Your task to perform on an android device: turn on the 12-hour format for clock Image 0: 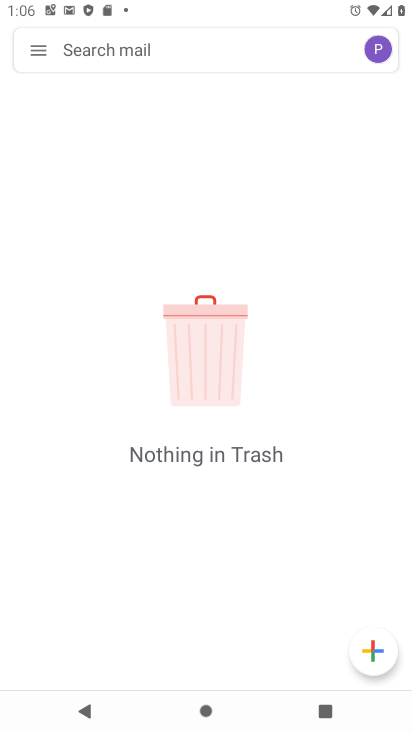
Step 0: press home button
Your task to perform on an android device: turn on the 12-hour format for clock Image 1: 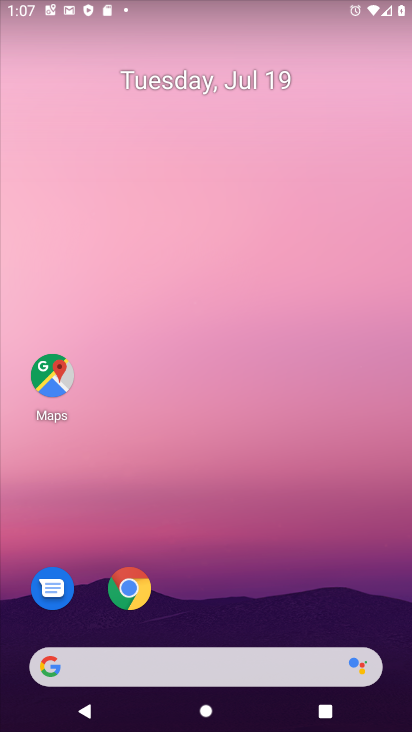
Step 1: drag from (381, 598) to (290, 12)
Your task to perform on an android device: turn on the 12-hour format for clock Image 2: 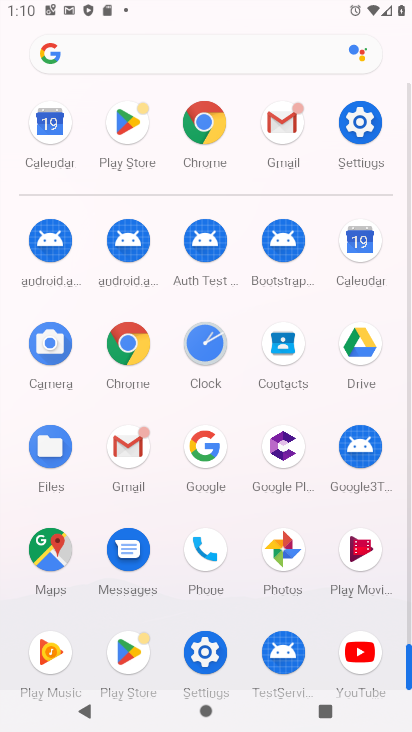
Step 2: click (207, 348)
Your task to perform on an android device: turn on the 12-hour format for clock Image 3: 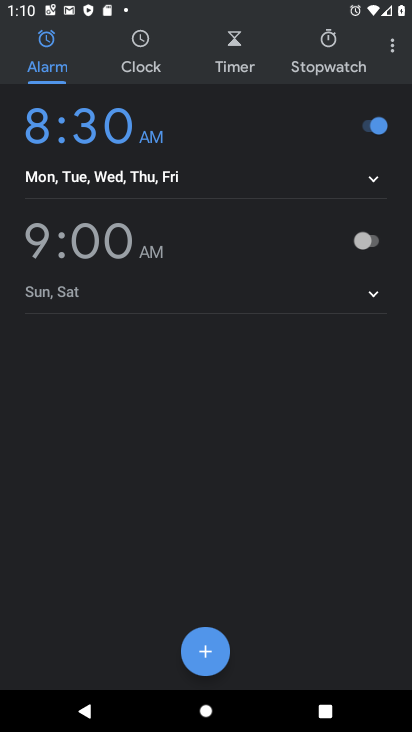
Step 3: click (380, 53)
Your task to perform on an android device: turn on the 12-hour format for clock Image 4: 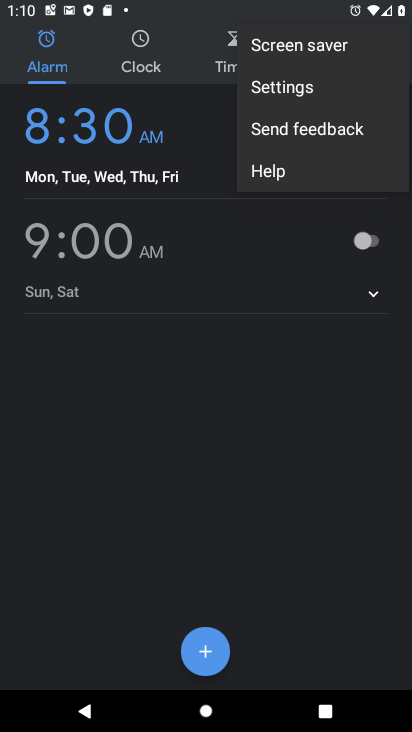
Step 4: click (258, 99)
Your task to perform on an android device: turn on the 12-hour format for clock Image 5: 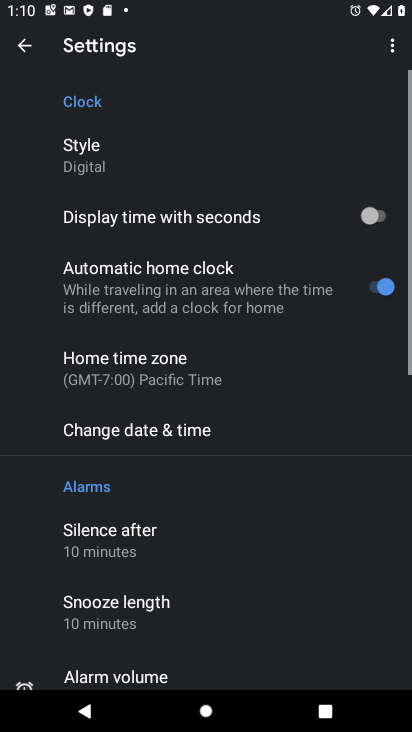
Step 5: click (134, 434)
Your task to perform on an android device: turn on the 12-hour format for clock Image 6: 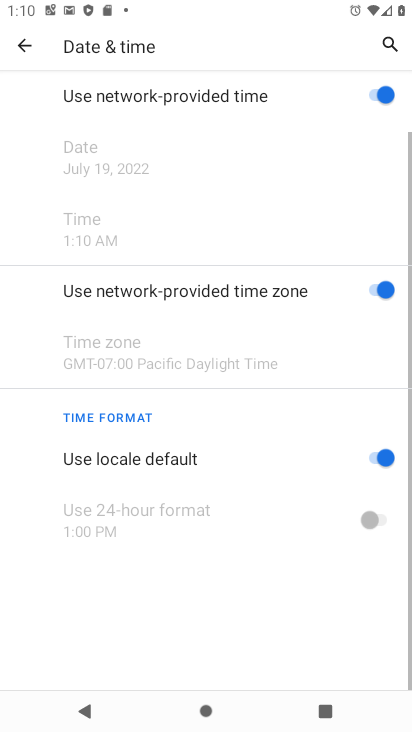
Step 6: task complete